Your task to perform on an android device: open the mobile data screen to see how much data has been used Image 0: 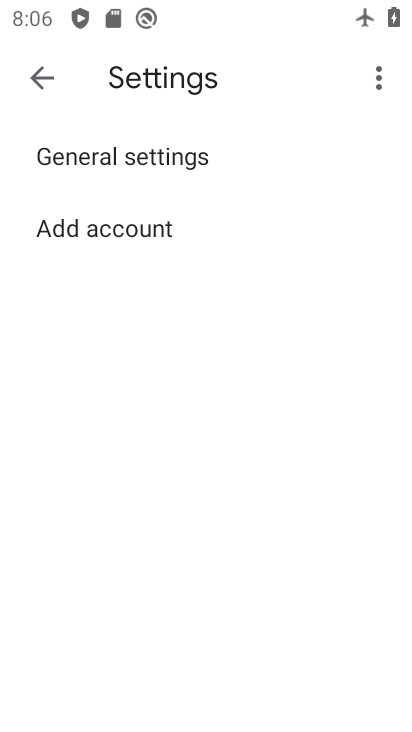
Step 0: press back button
Your task to perform on an android device: open the mobile data screen to see how much data has been used Image 1: 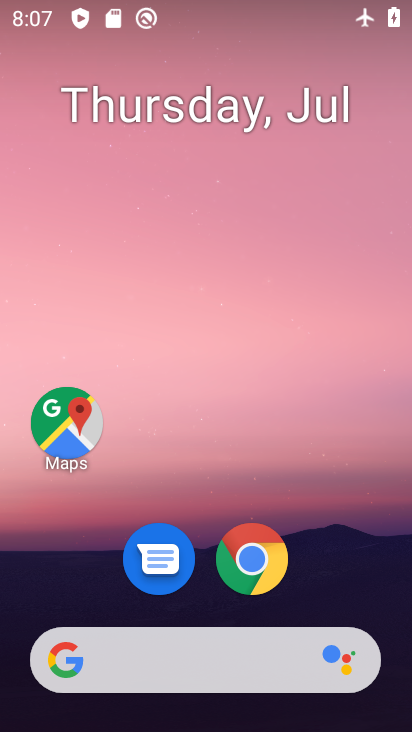
Step 1: drag from (198, 615) to (218, 14)
Your task to perform on an android device: open the mobile data screen to see how much data has been used Image 2: 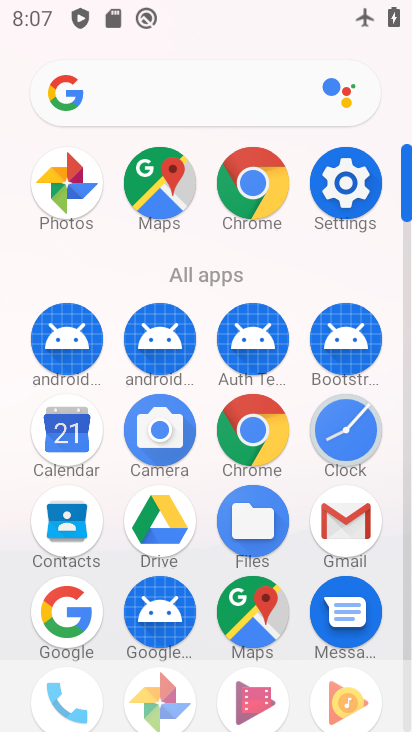
Step 2: click (353, 192)
Your task to perform on an android device: open the mobile data screen to see how much data has been used Image 3: 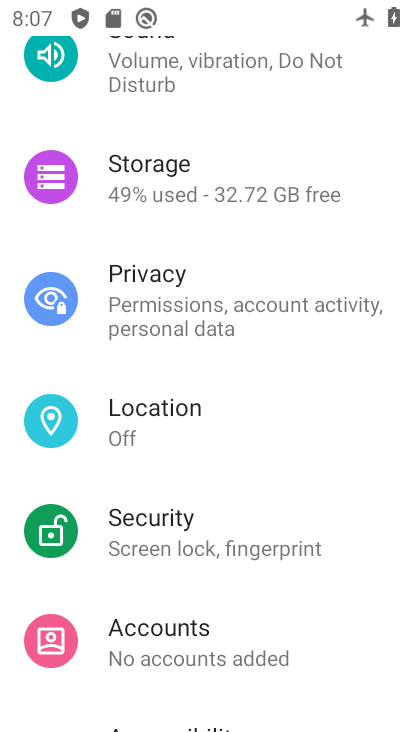
Step 3: drag from (298, 198) to (209, 725)
Your task to perform on an android device: open the mobile data screen to see how much data has been used Image 4: 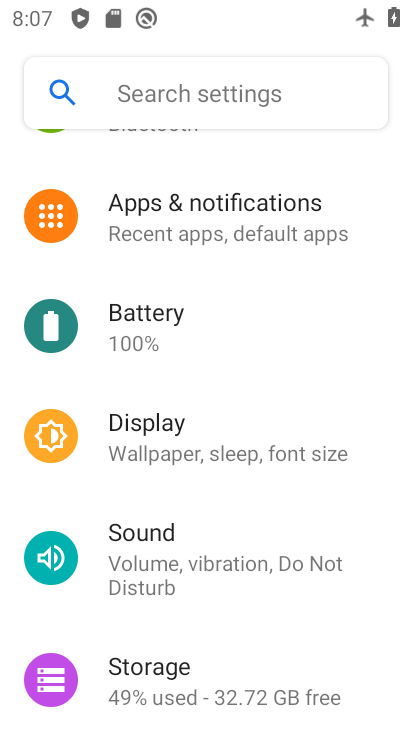
Step 4: drag from (190, 241) to (190, 715)
Your task to perform on an android device: open the mobile data screen to see how much data has been used Image 5: 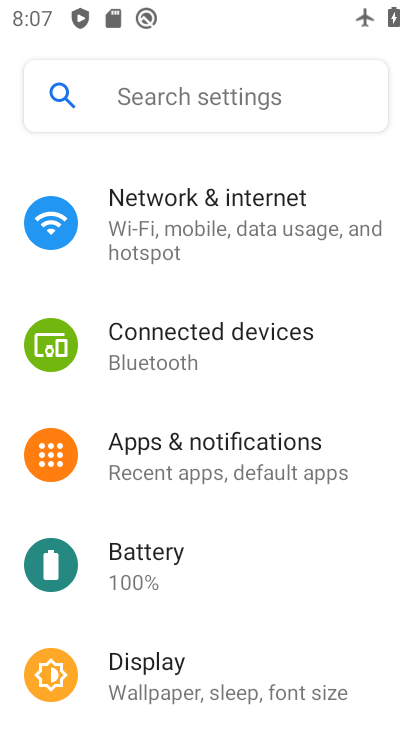
Step 5: click (252, 215)
Your task to perform on an android device: open the mobile data screen to see how much data has been used Image 6: 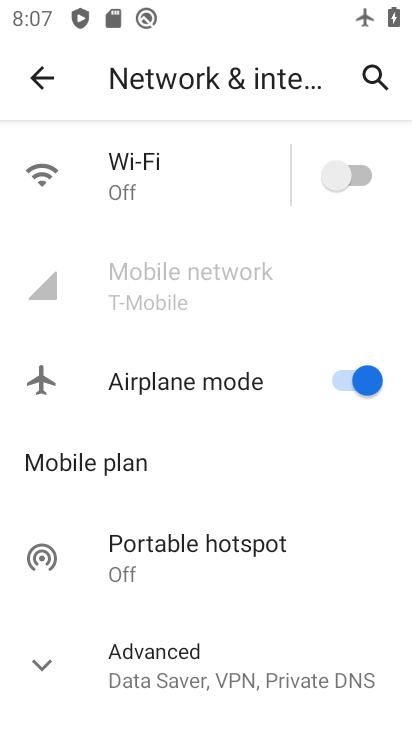
Step 6: click (356, 369)
Your task to perform on an android device: open the mobile data screen to see how much data has been used Image 7: 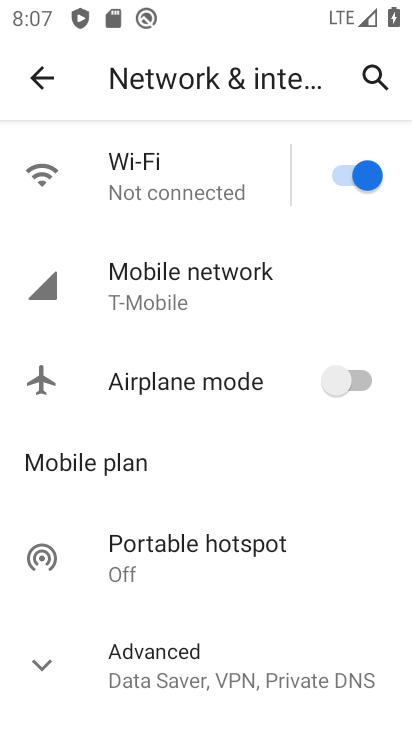
Step 7: click (193, 277)
Your task to perform on an android device: open the mobile data screen to see how much data has been used Image 8: 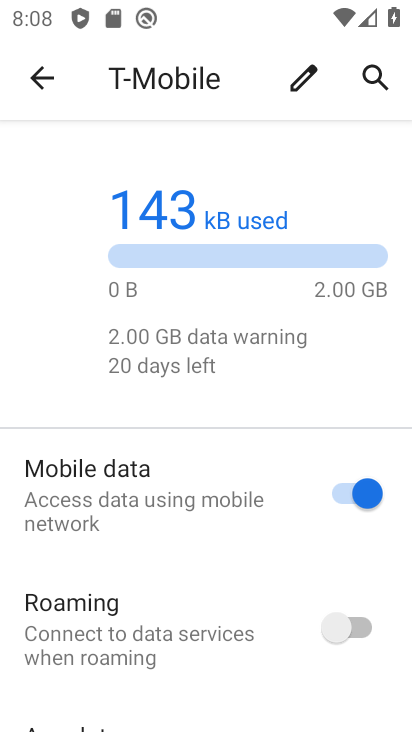
Step 8: drag from (162, 644) to (215, 205)
Your task to perform on an android device: open the mobile data screen to see how much data has been used Image 9: 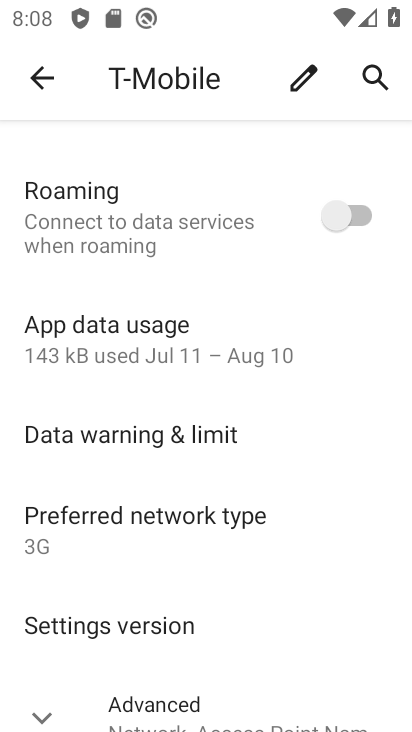
Step 9: click (141, 331)
Your task to perform on an android device: open the mobile data screen to see how much data has been used Image 10: 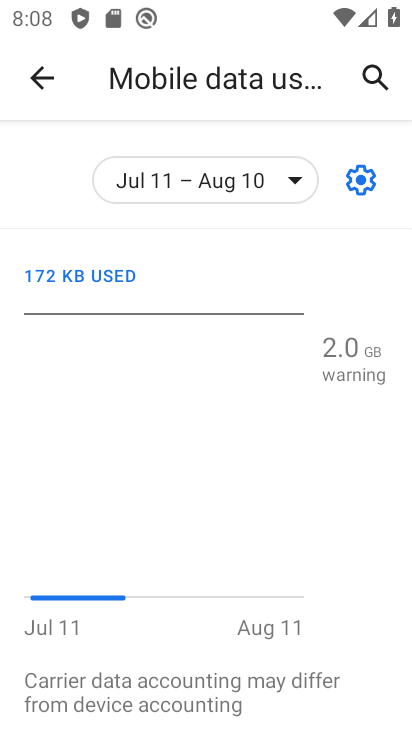
Step 10: task complete